Your task to perform on an android device: When is my next appointment? Image 0: 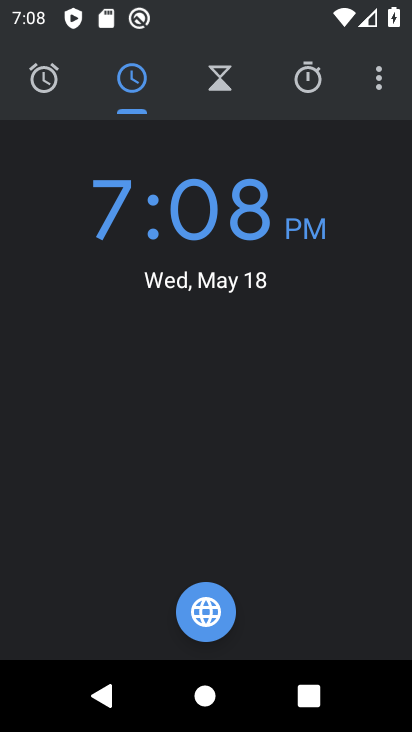
Step 0: press home button
Your task to perform on an android device: When is my next appointment? Image 1: 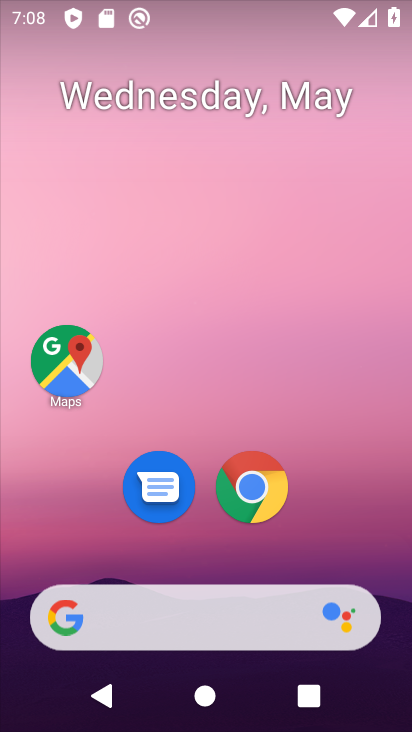
Step 1: drag from (286, 608) to (289, 161)
Your task to perform on an android device: When is my next appointment? Image 2: 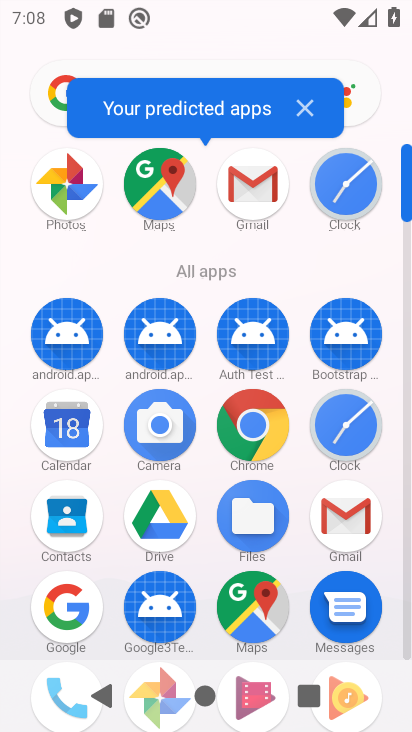
Step 2: click (95, 419)
Your task to perform on an android device: When is my next appointment? Image 3: 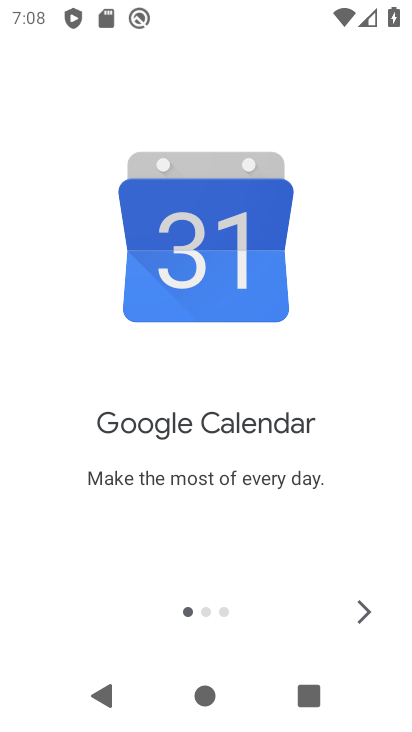
Step 3: click (375, 618)
Your task to perform on an android device: When is my next appointment? Image 4: 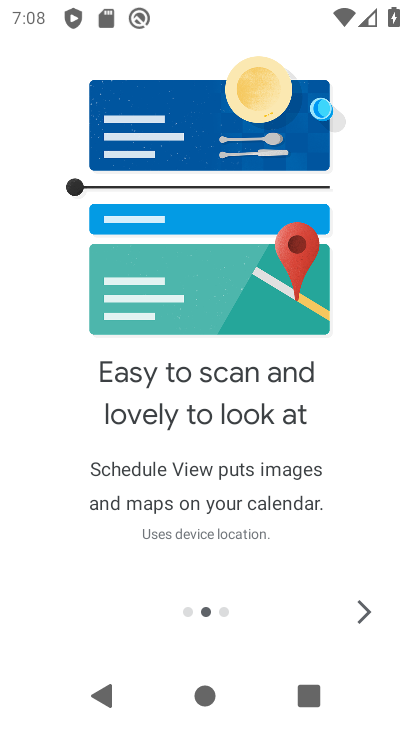
Step 4: click (374, 619)
Your task to perform on an android device: When is my next appointment? Image 5: 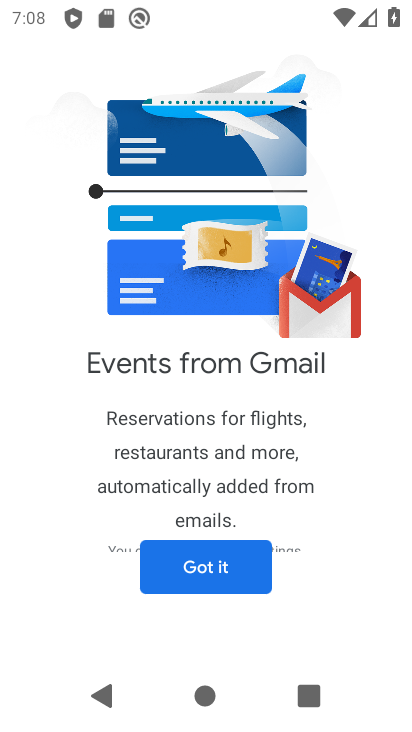
Step 5: click (241, 556)
Your task to perform on an android device: When is my next appointment? Image 6: 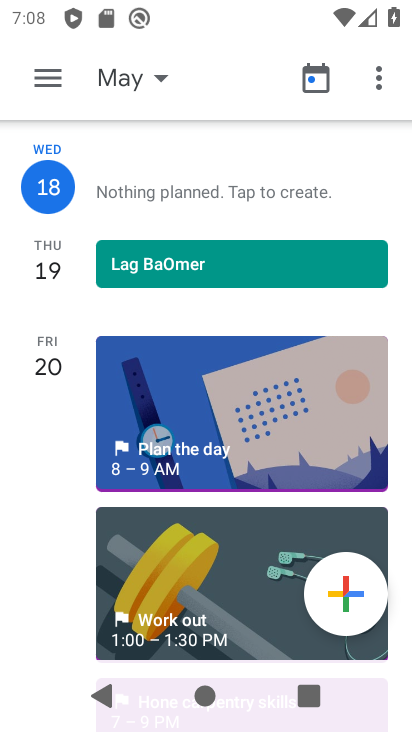
Step 6: task complete